Your task to perform on an android device: When is my next meeting? Image 0: 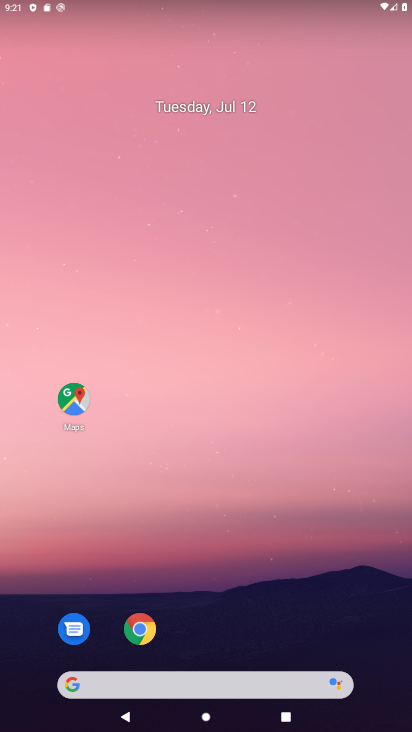
Step 0: drag from (305, 619) to (304, 14)
Your task to perform on an android device: When is my next meeting? Image 1: 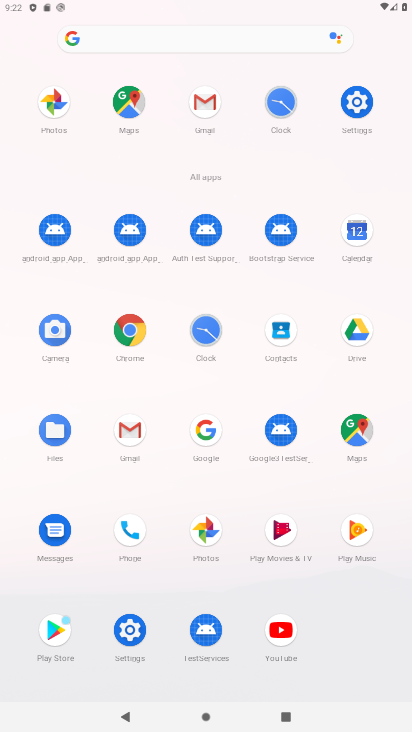
Step 1: click (350, 228)
Your task to perform on an android device: When is my next meeting? Image 2: 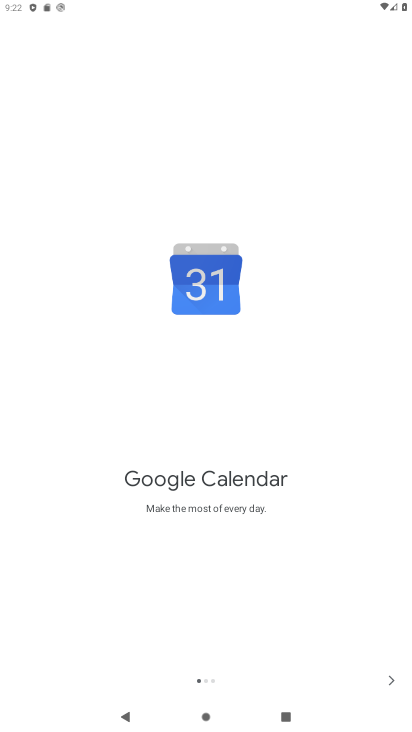
Step 2: click (390, 688)
Your task to perform on an android device: When is my next meeting? Image 3: 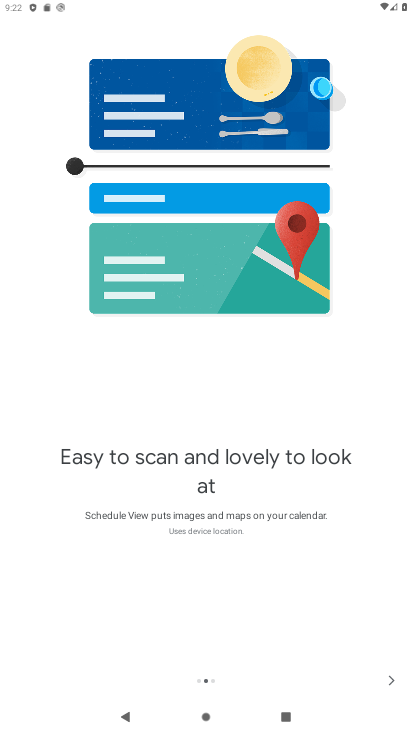
Step 3: click (390, 688)
Your task to perform on an android device: When is my next meeting? Image 4: 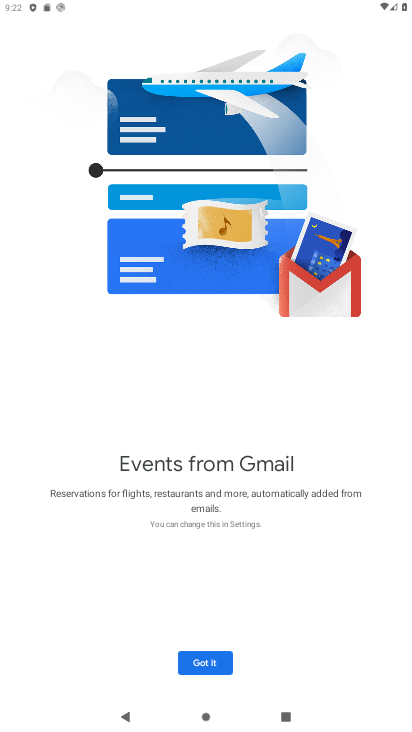
Step 4: click (201, 660)
Your task to perform on an android device: When is my next meeting? Image 5: 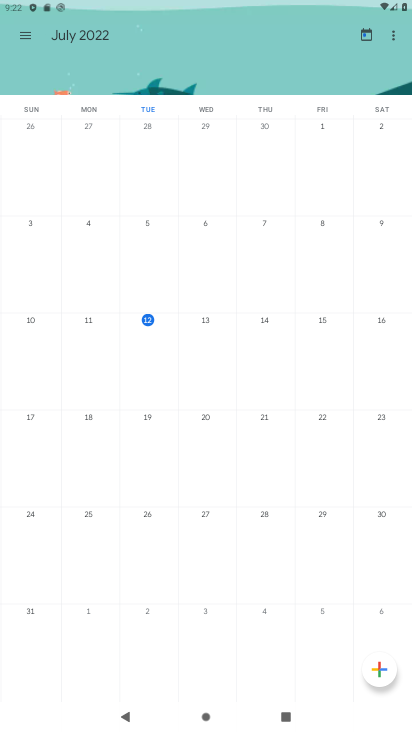
Step 5: click (147, 330)
Your task to perform on an android device: When is my next meeting? Image 6: 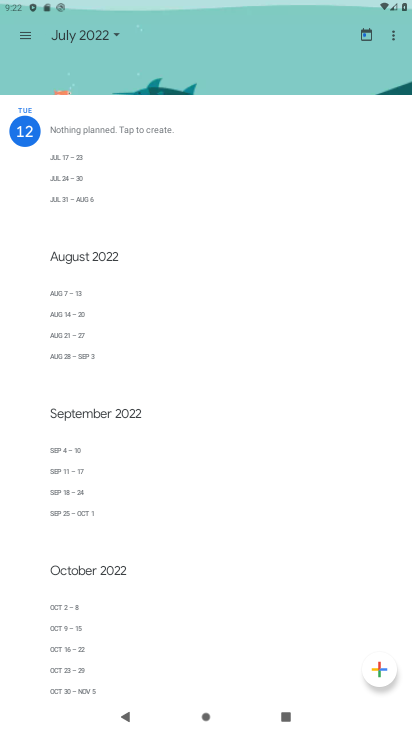
Step 6: click (26, 34)
Your task to perform on an android device: When is my next meeting? Image 7: 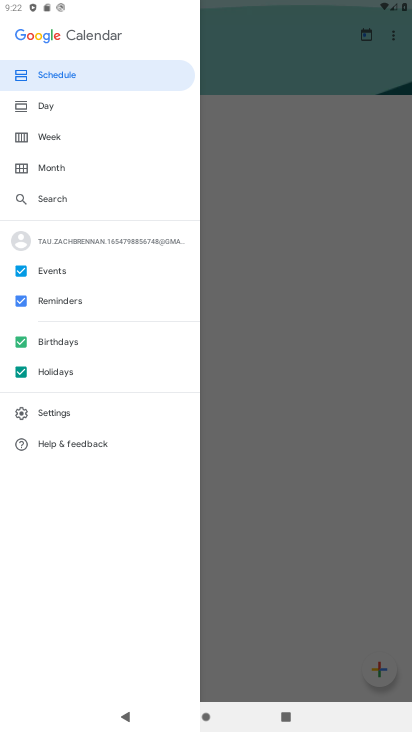
Step 7: click (78, 81)
Your task to perform on an android device: When is my next meeting? Image 8: 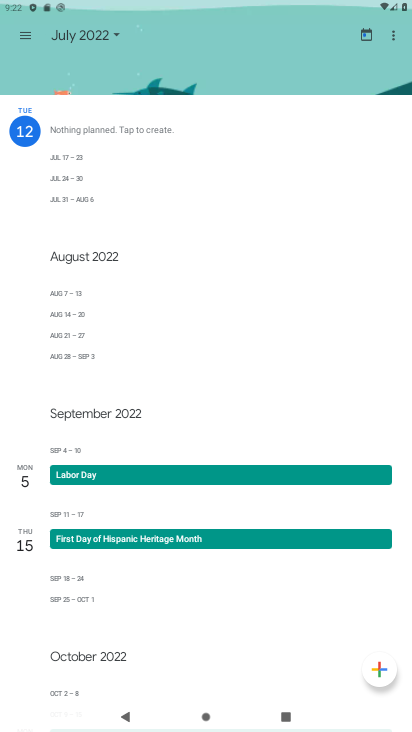
Step 8: task complete